Your task to perform on an android device: toggle javascript in the chrome app Image 0: 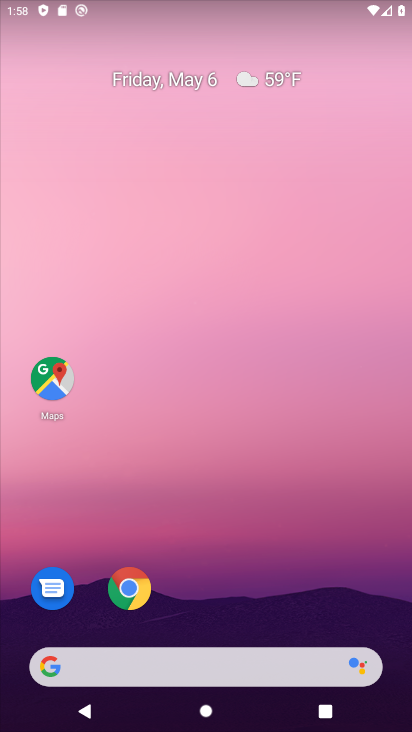
Step 0: click (130, 589)
Your task to perform on an android device: toggle javascript in the chrome app Image 1: 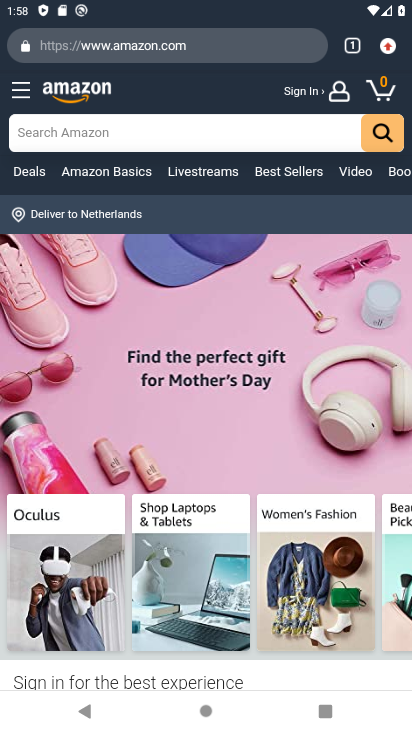
Step 1: click (395, 45)
Your task to perform on an android device: toggle javascript in the chrome app Image 2: 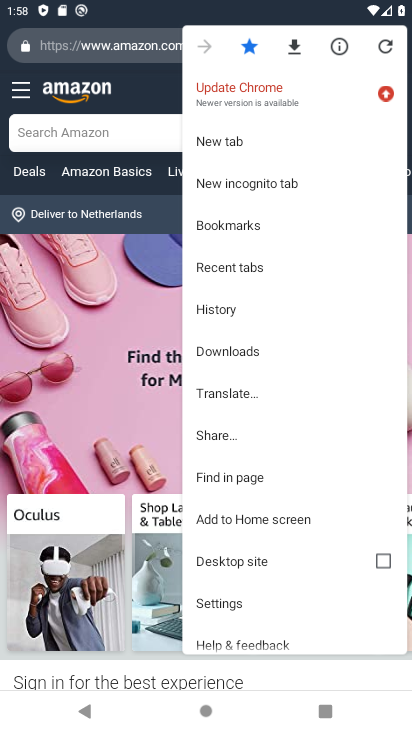
Step 2: click (238, 615)
Your task to perform on an android device: toggle javascript in the chrome app Image 3: 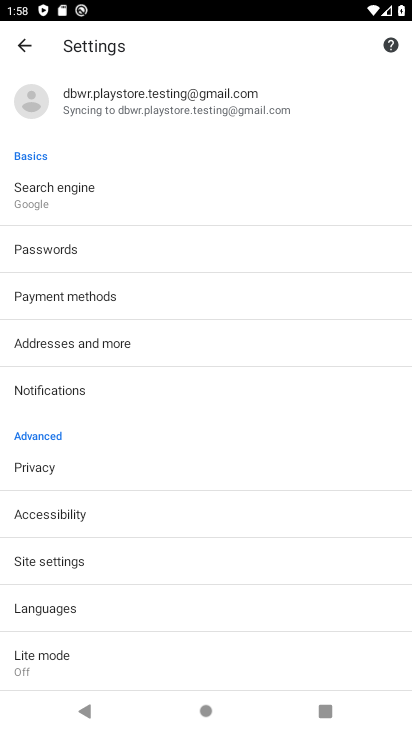
Step 3: drag from (238, 615) to (298, 247)
Your task to perform on an android device: toggle javascript in the chrome app Image 4: 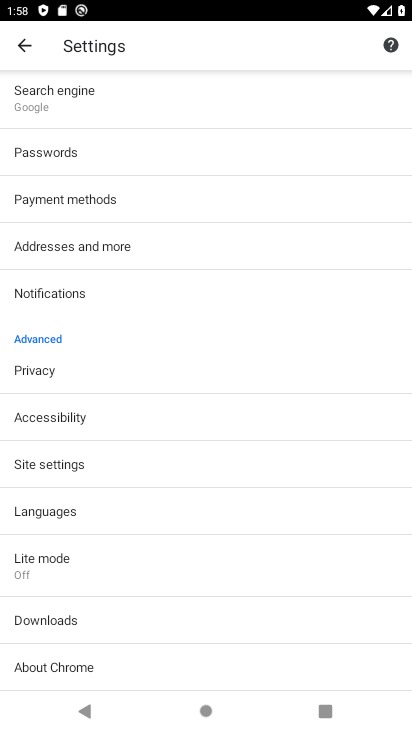
Step 4: click (26, 464)
Your task to perform on an android device: toggle javascript in the chrome app Image 5: 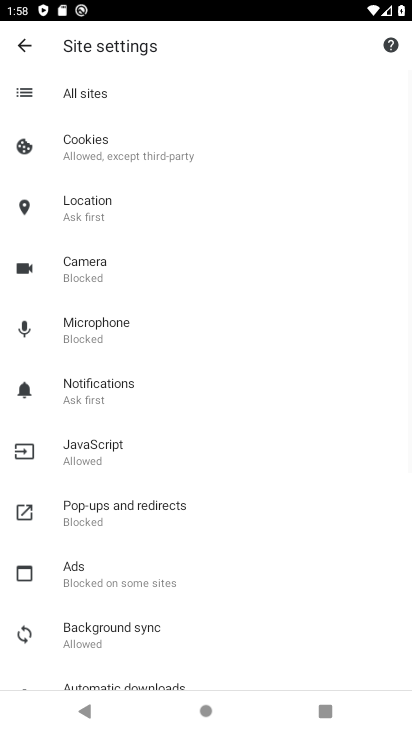
Step 5: click (26, 464)
Your task to perform on an android device: toggle javascript in the chrome app Image 6: 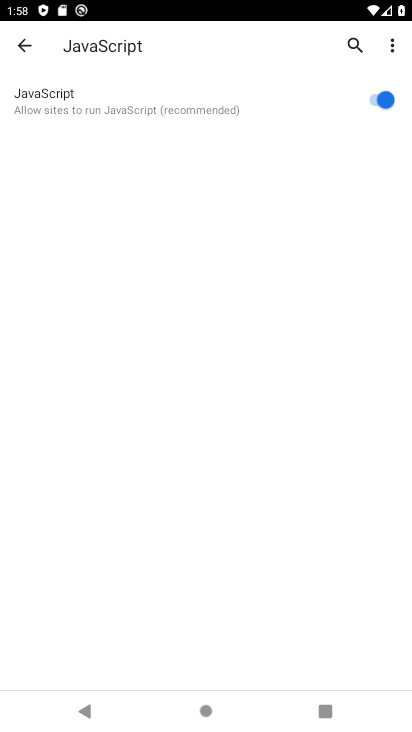
Step 6: click (381, 108)
Your task to perform on an android device: toggle javascript in the chrome app Image 7: 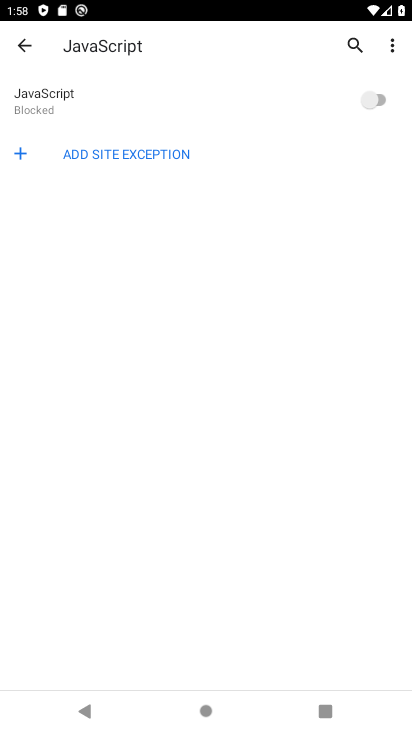
Step 7: click (381, 108)
Your task to perform on an android device: toggle javascript in the chrome app Image 8: 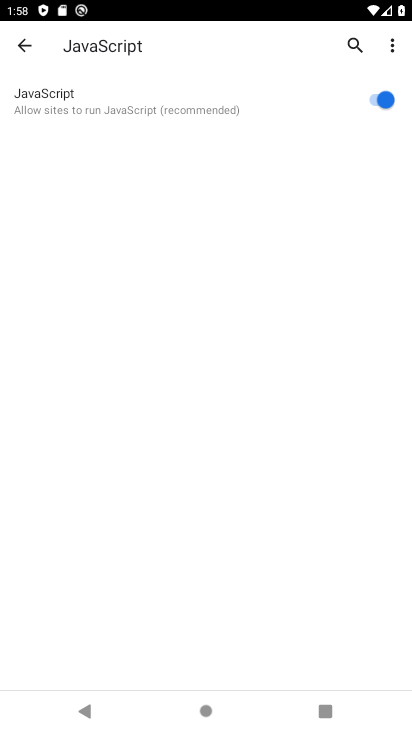
Step 8: task complete